Your task to perform on an android device: toggle show notifications on the lock screen Image 0: 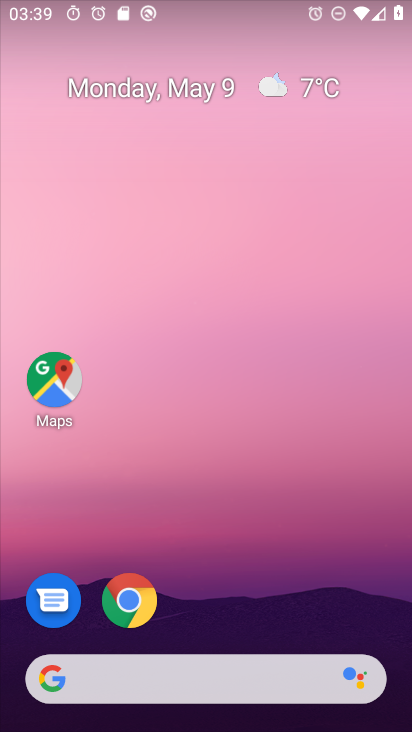
Step 0: click (126, 612)
Your task to perform on an android device: toggle show notifications on the lock screen Image 1: 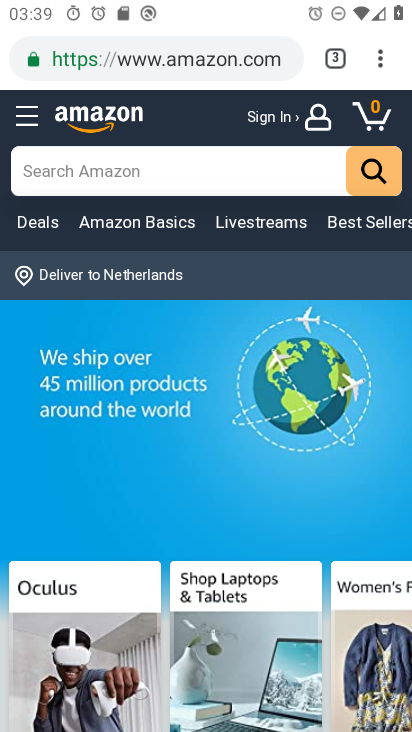
Step 1: press home button
Your task to perform on an android device: toggle show notifications on the lock screen Image 2: 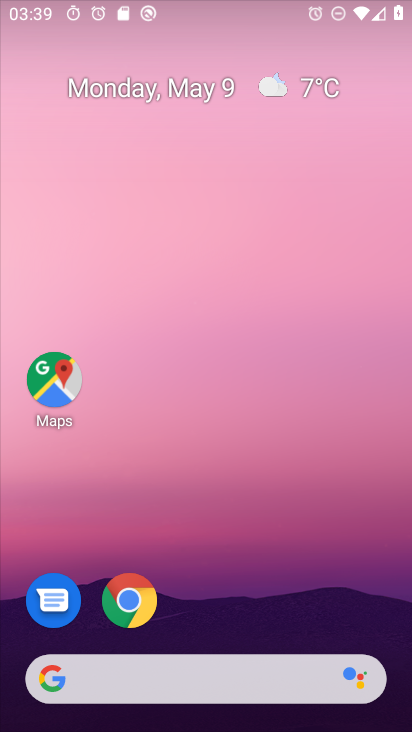
Step 2: drag from (202, 654) to (146, 206)
Your task to perform on an android device: toggle show notifications on the lock screen Image 3: 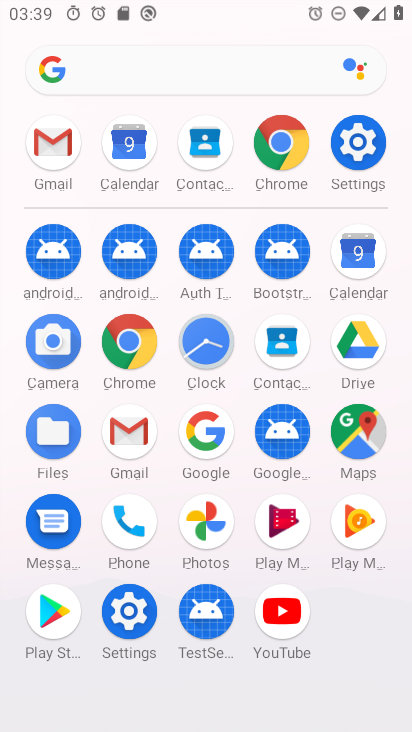
Step 3: click (351, 154)
Your task to perform on an android device: toggle show notifications on the lock screen Image 4: 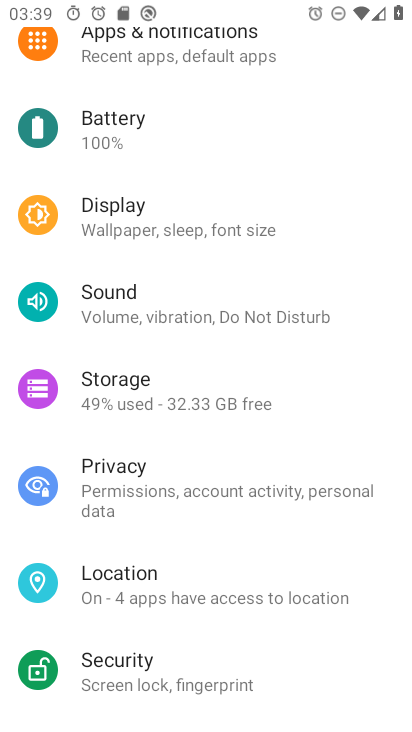
Step 4: click (164, 55)
Your task to perform on an android device: toggle show notifications on the lock screen Image 5: 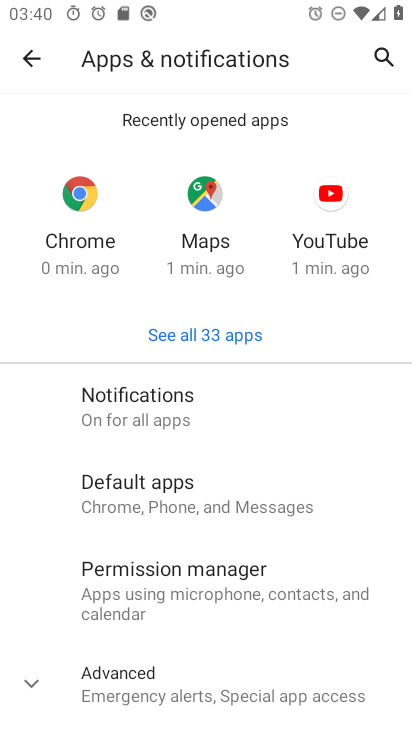
Step 5: click (155, 432)
Your task to perform on an android device: toggle show notifications on the lock screen Image 6: 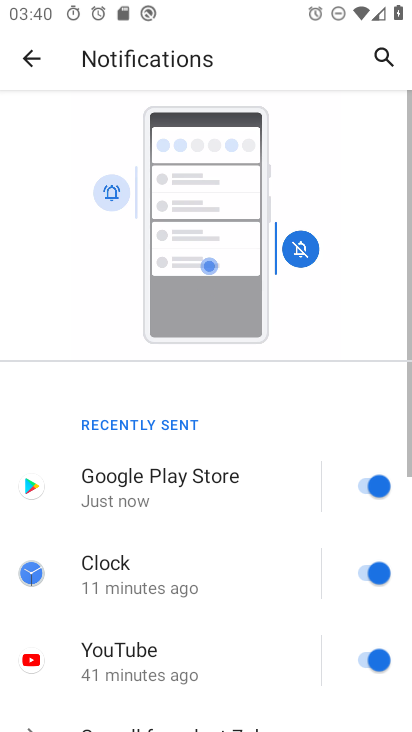
Step 6: drag from (215, 583) to (239, 187)
Your task to perform on an android device: toggle show notifications on the lock screen Image 7: 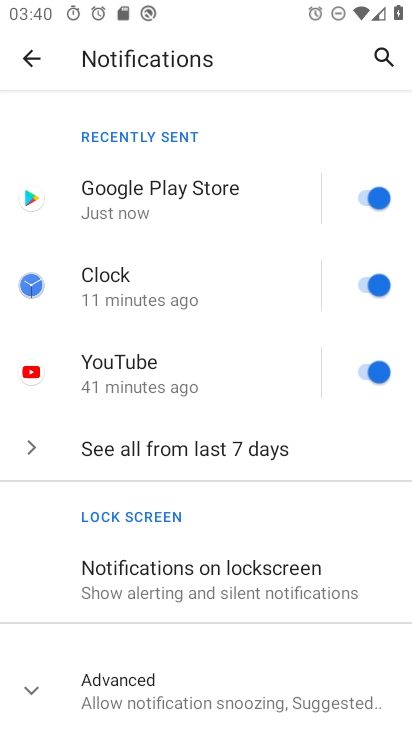
Step 7: click (235, 606)
Your task to perform on an android device: toggle show notifications on the lock screen Image 8: 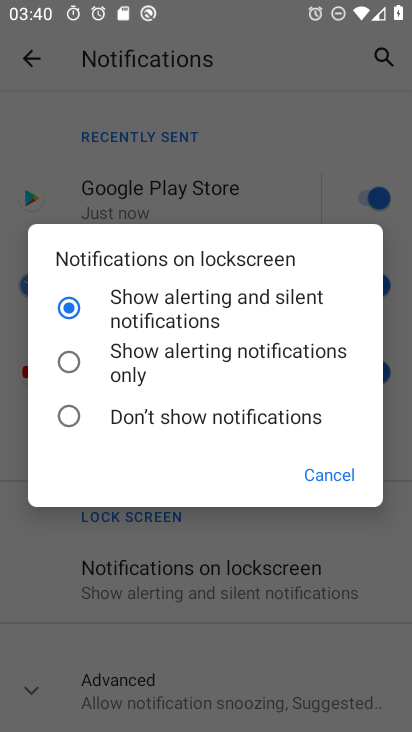
Step 8: click (196, 296)
Your task to perform on an android device: toggle show notifications on the lock screen Image 9: 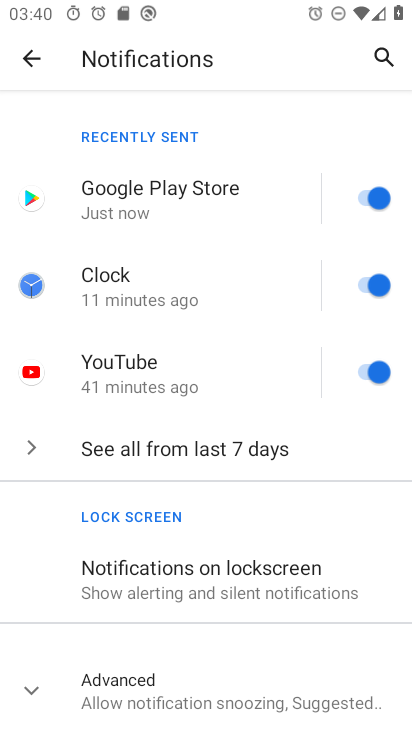
Step 9: task complete